Your task to perform on an android device: Open maps Image 0: 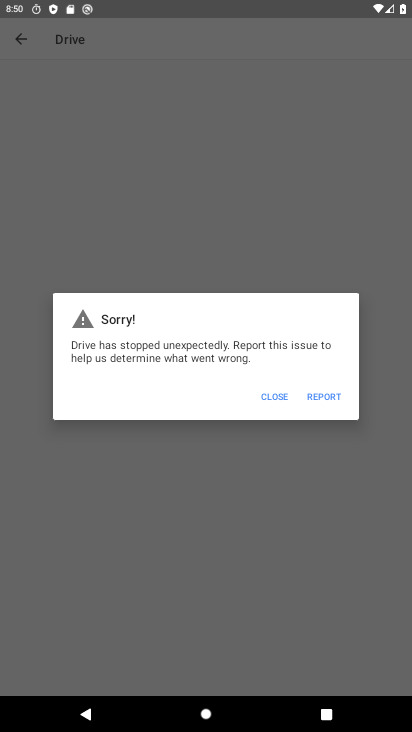
Step 0: press home button
Your task to perform on an android device: Open maps Image 1: 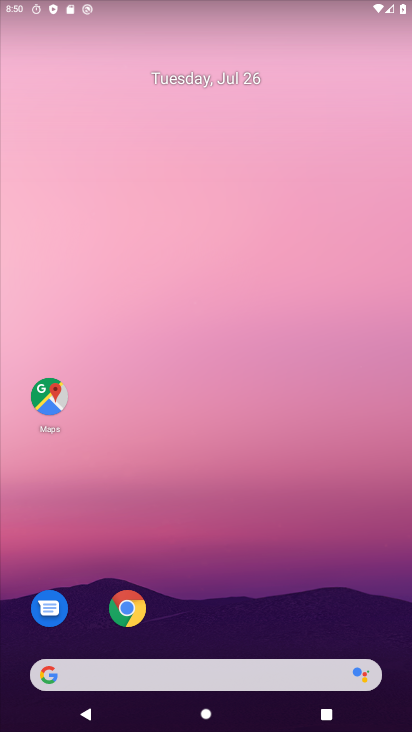
Step 1: click (56, 402)
Your task to perform on an android device: Open maps Image 2: 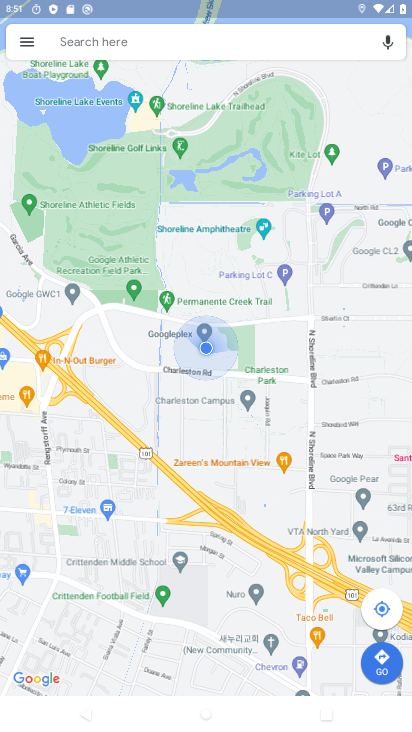
Step 2: task complete